Your task to perform on an android device: Show me the alarms in the clock app Image 0: 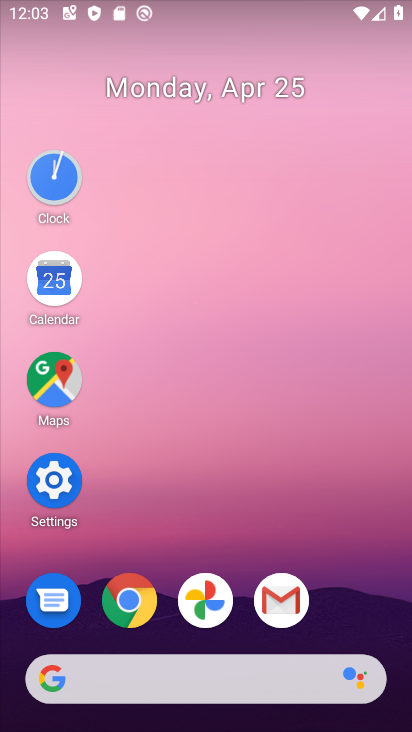
Step 0: click (54, 192)
Your task to perform on an android device: Show me the alarms in the clock app Image 1: 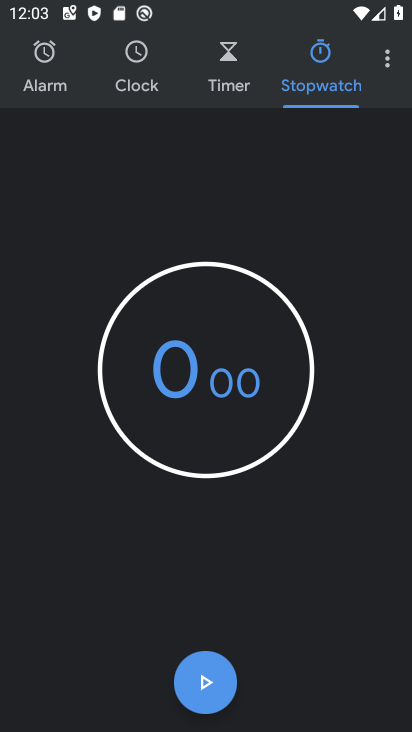
Step 1: click (39, 68)
Your task to perform on an android device: Show me the alarms in the clock app Image 2: 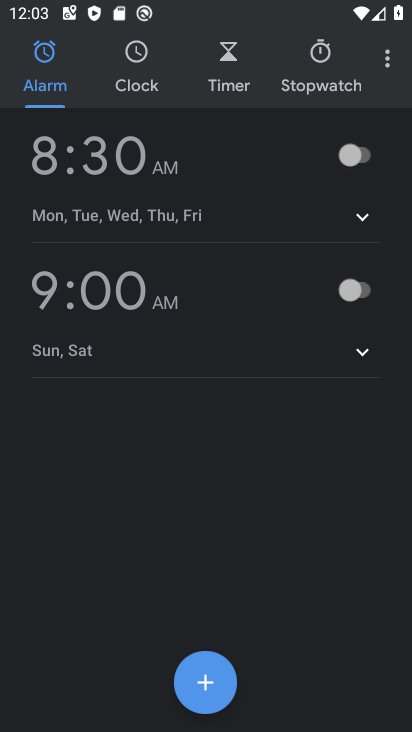
Step 2: task complete